Your task to perform on an android device: Open privacy settings Image 0: 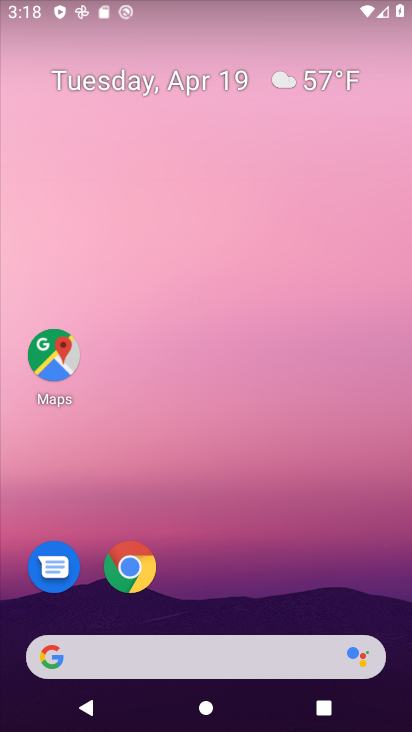
Step 0: drag from (378, 584) to (354, 111)
Your task to perform on an android device: Open privacy settings Image 1: 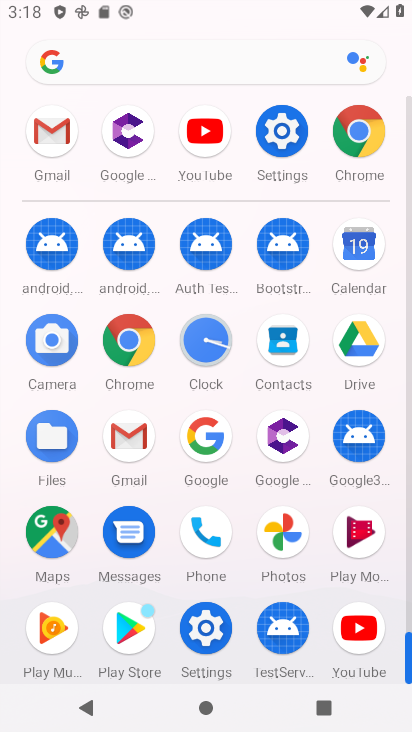
Step 1: click (287, 123)
Your task to perform on an android device: Open privacy settings Image 2: 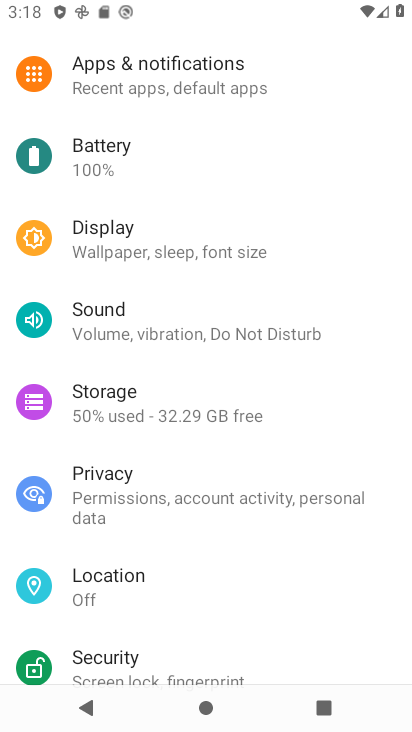
Step 2: drag from (371, 247) to (374, 395)
Your task to perform on an android device: Open privacy settings Image 3: 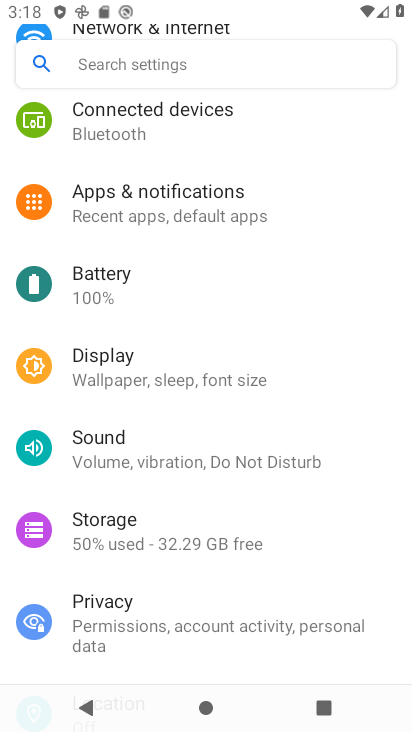
Step 3: drag from (376, 257) to (357, 422)
Your task to perform on an android device: Open privacy settings Image 4: 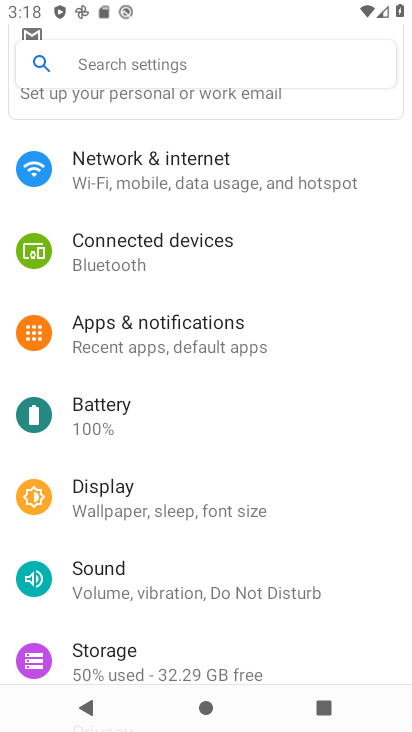
Step 4: drag from (359, 279) to (377, 406)
Your task to perform on an android device: Open privacy settings Image 5: 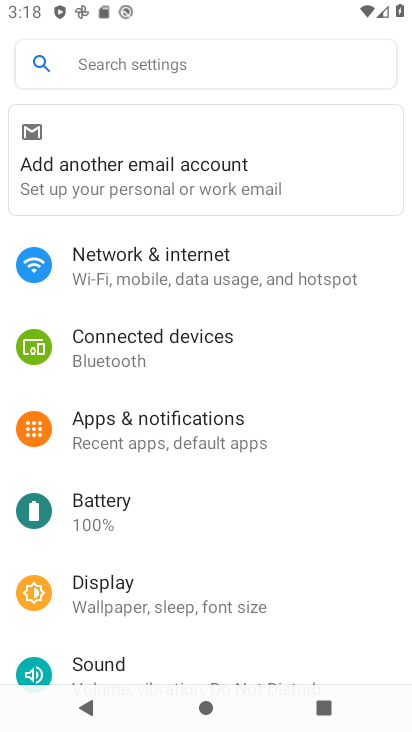
Step 5: drag from (346, 548) to (348, 385)
Your task to perform on an android device: Open privacy settings Image 6: 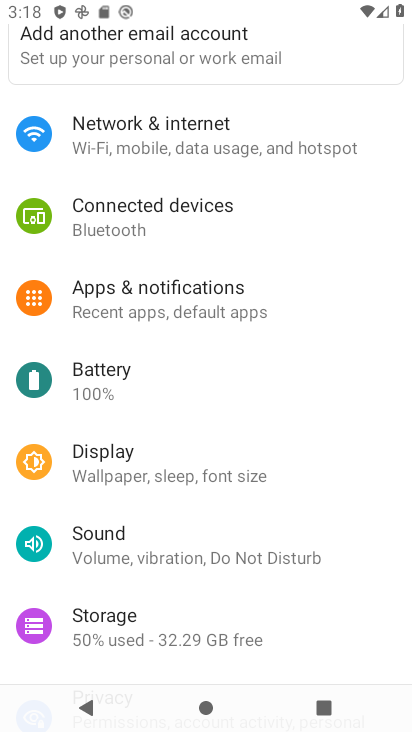
Step 6: drag from (350, 574) to (363, 347)
Your task to perform on an android device: Open privacy settings Image 7: 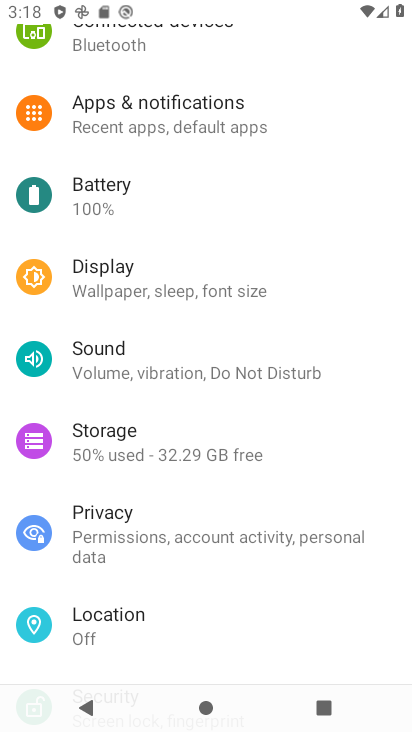
Step 7: drag from (347, 589) to (368, 355)
Your task to perform on an android device: Open privacy settings Image 8: 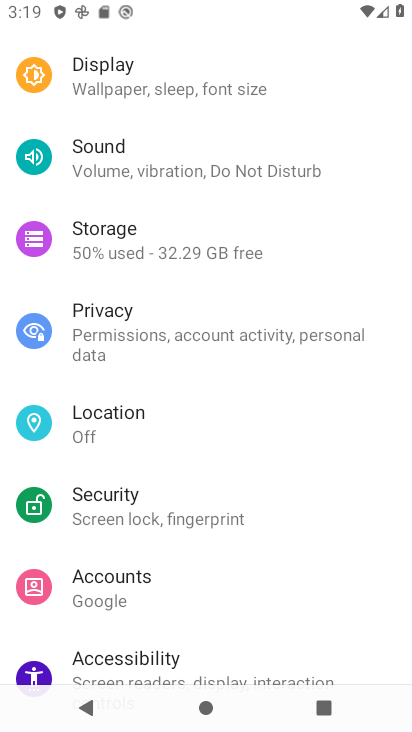
Step 8: click (89, 327)
Your task to perform on an android device: Open privacy settings Image 9: 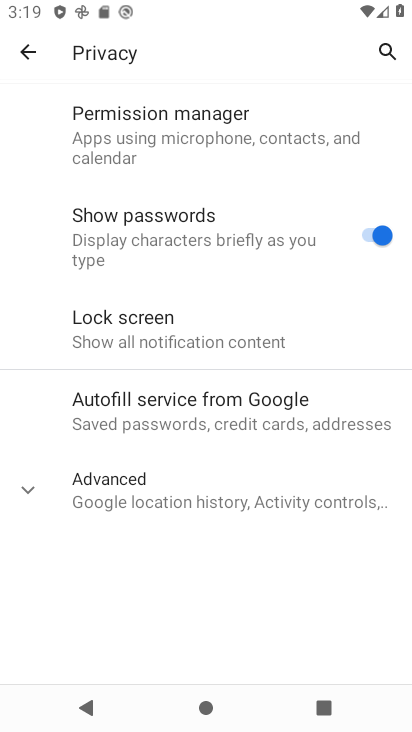
Step 9: task complete